Your task to perform on an android device: Open calendar and show me the fourth week of next month Image 0: 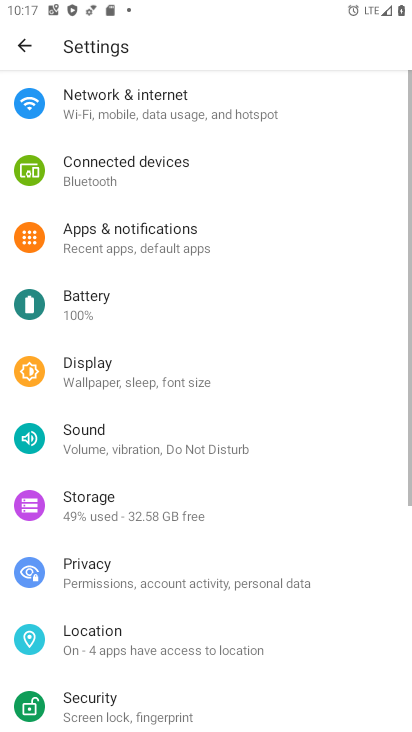
Step 0: press home button
Your task to perform on an android device: Open calendar and show me the fourth week of next month Image 1: 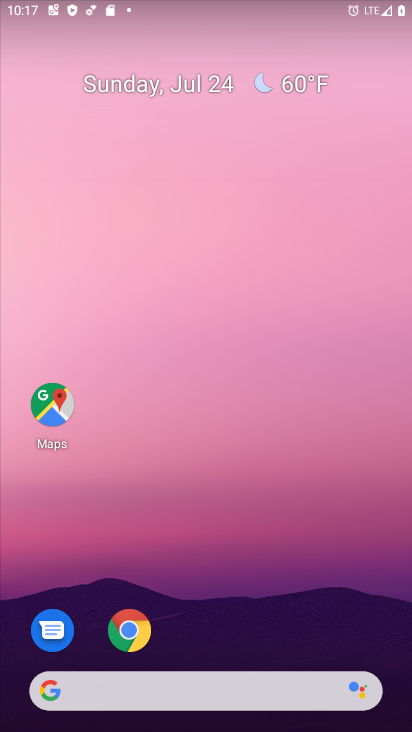
Step 1: drag from (214, 608) to (219, 54)
Your task to perform on an android device: Open calendar and show me the fourth week of next month Image 2: 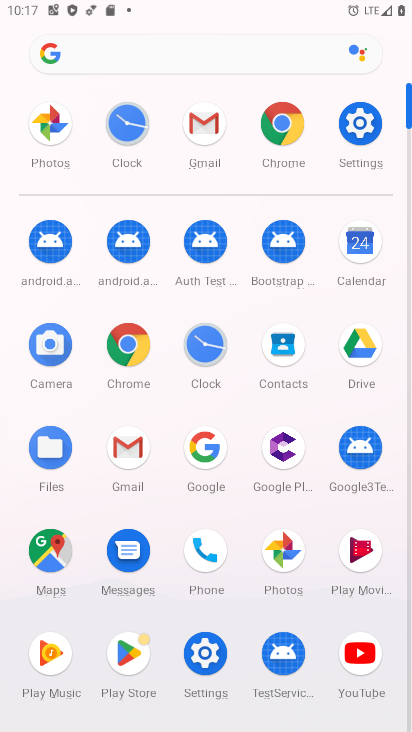
Step 2: click (358, 231)
Your task to perform on an android device: Open calendar and show me the fourth week of next month Image 3: 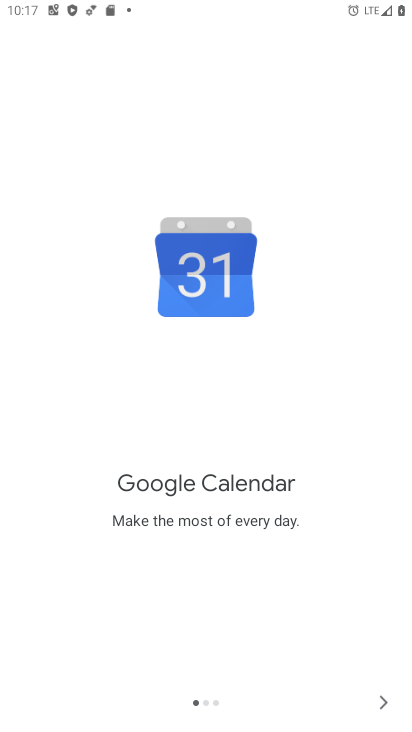
Step 3: click (385, 706)
Your task to perform on an android device: Open calendar and show me the fourth week of next month Image 4: 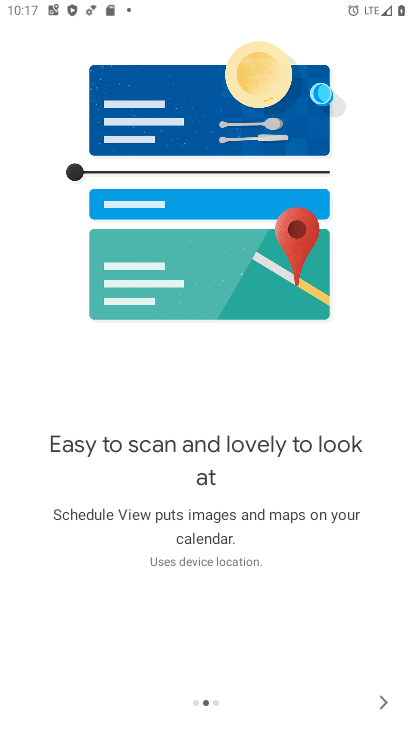
Step 4: click (384, 707)
Your task to perform on an android device: Open calendar and show me the fourth week of next month Image 5: 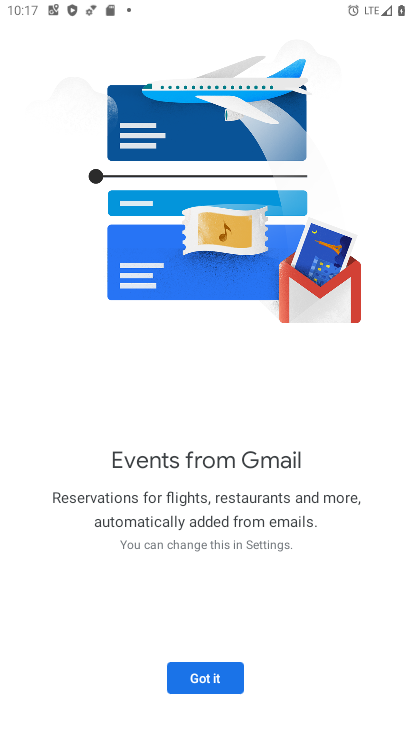
Step 5: click (202, 668)
Your task to perform on an android device: Open calendar and show me the fourth week of next month Image 6: 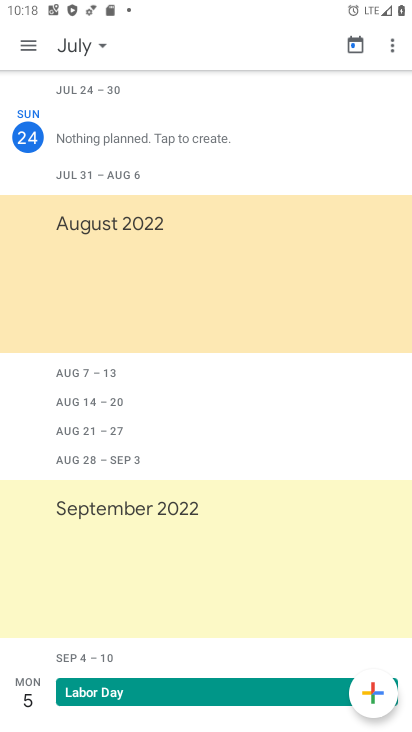
Step 6: click (28, 50)
Your task to perform on an android device: Open calendar and show me the fourth week of next month Image 7: 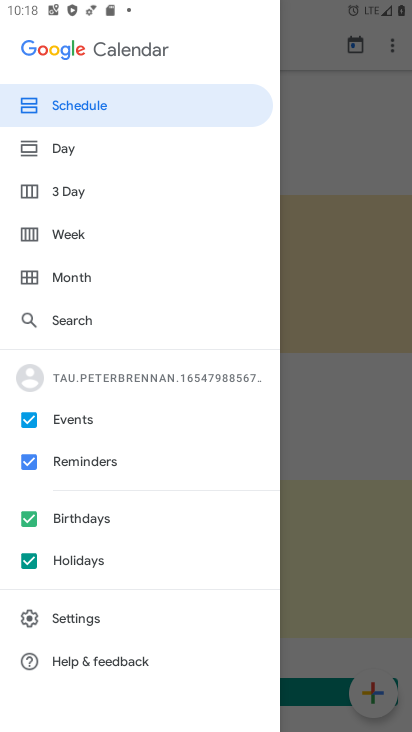
Step 7: click (66, 236)
Your task to perform on an android device: Open calendar and show me the fourth week of next month Image 8: 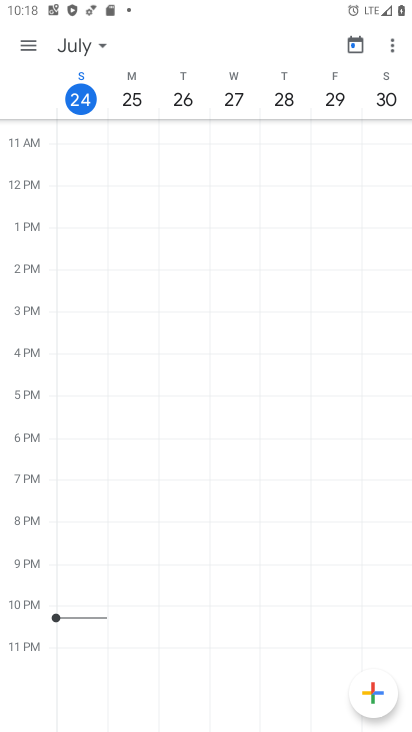
Step 8: task complete